Your task to perform on an android device: change the clock display to analog Image 0: 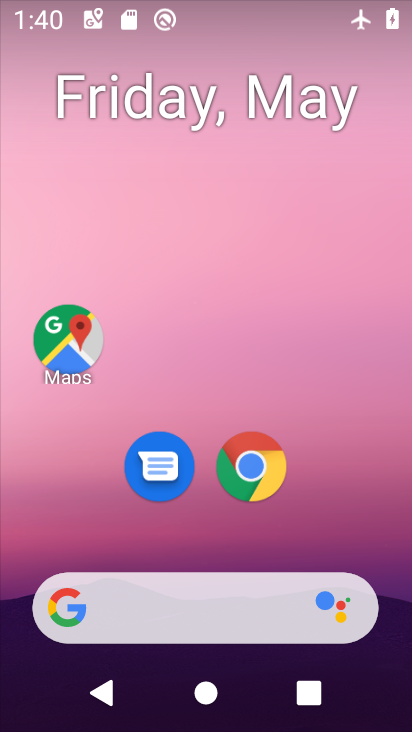
Step 0: drag from (359, 537) to (365, 91)
Your task to perform on an android device: change the clock display to analog Image 1: 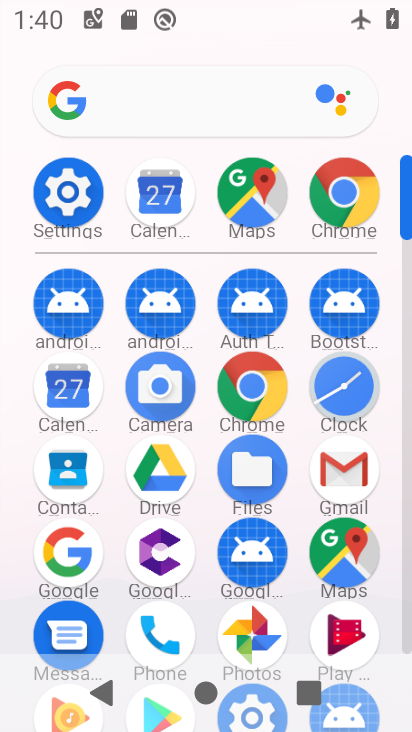
Step 1: click (349, 377)
Your task to perform on an android device: change the clock display to analog Image 2: 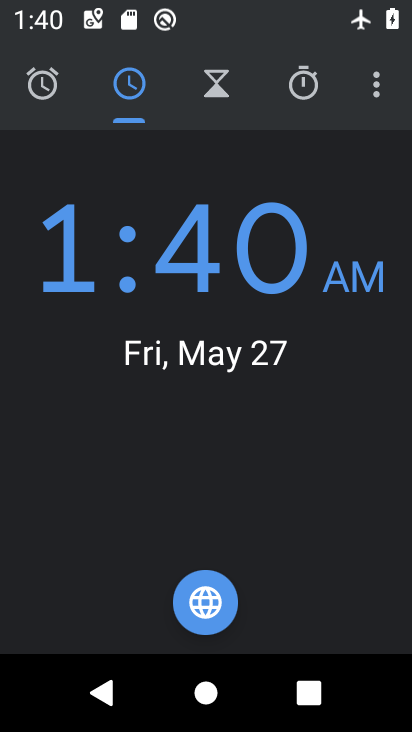
Step 2: click (379, 91)
Your task to perform on an android device: change the clock display to analog Image 3: 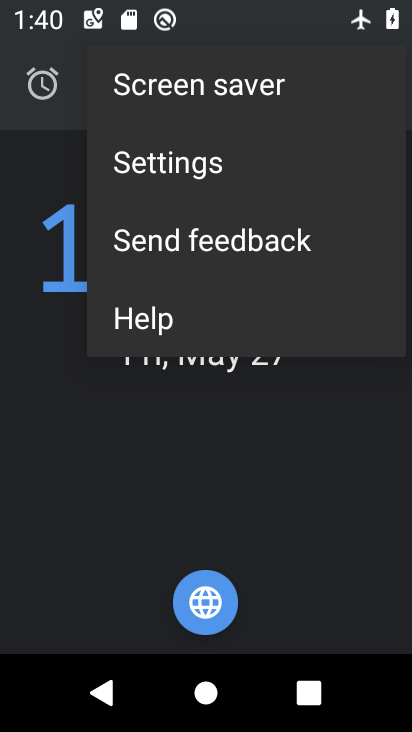
Step 3: click (153, 170)
Your task to perform on an android device: change the clock display to analog Image 4: 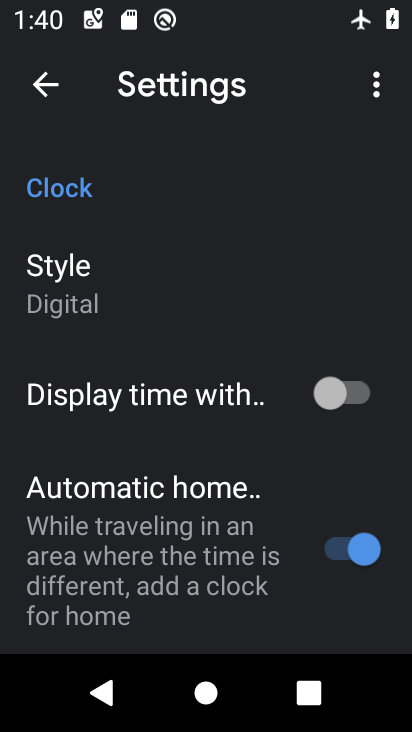
Step 4: click (85, 307)
Your task to perform on an android device: change the clock display to analog Image 5: 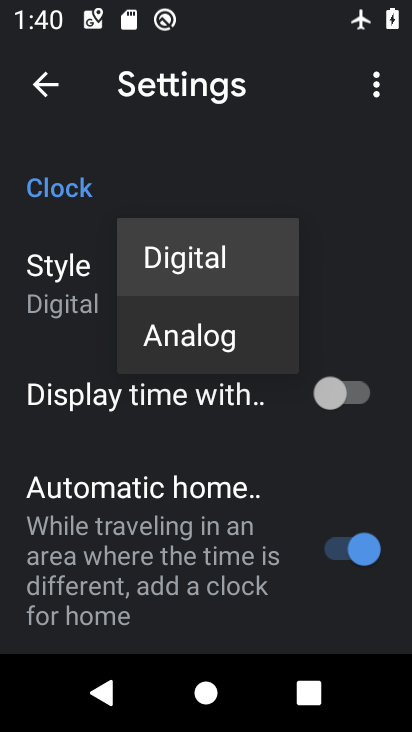
Step 5: click (162, 343)
Your task to perform on an android device: change the clock display to analog Image 6: 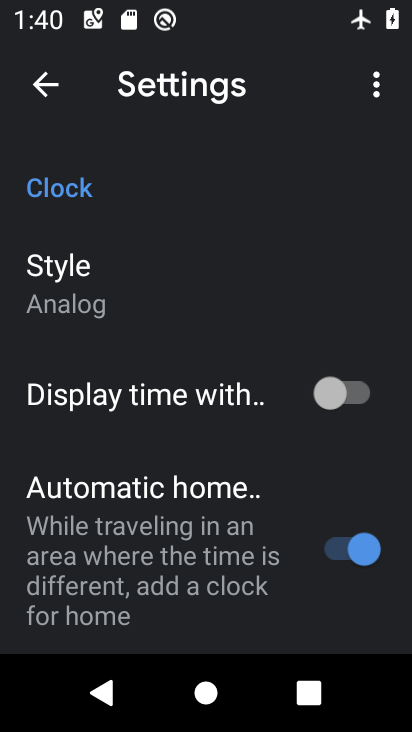
Step 6: task complete